Your task to perform on an android device: turn on airplane mode Image 0: 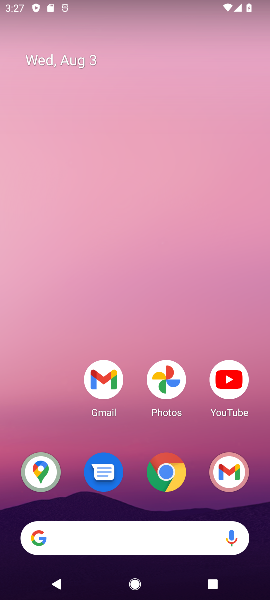
Step 0: drag from (237, 0) to (170, 424)
Your task to perform on an android device: turn on airplane mode Image 1: 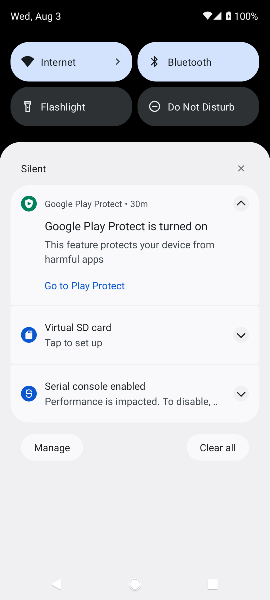
Step 1: drag from (124, 120) to (112, 583)
Your task to perform on an android device: turn on airplane mode Image 2: 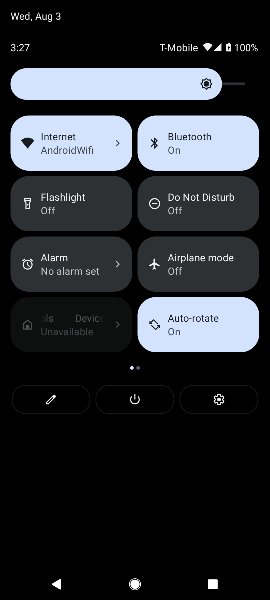
Step 2: click (205, 257)
Your task to perform on an android device: turn on airplane mode Image 3: 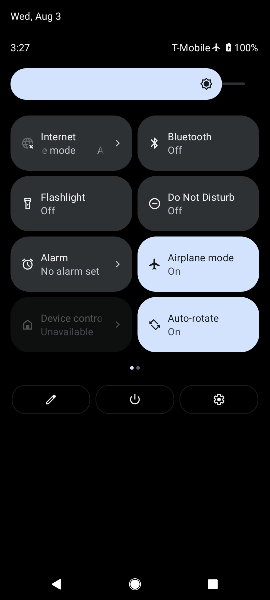
Step 3: task complete